Your task to perform on an android device: change the clock display to digital Image 0: 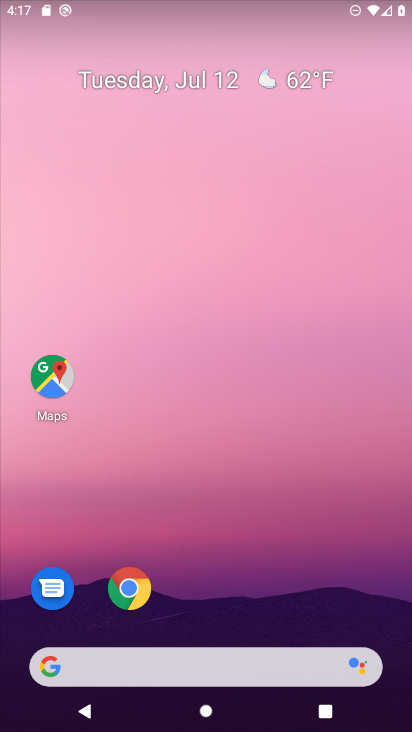
Step 0: drag from (214, 623) to (271, 223)
Your task to perform on an android device: change the clock display to digital Image 1: 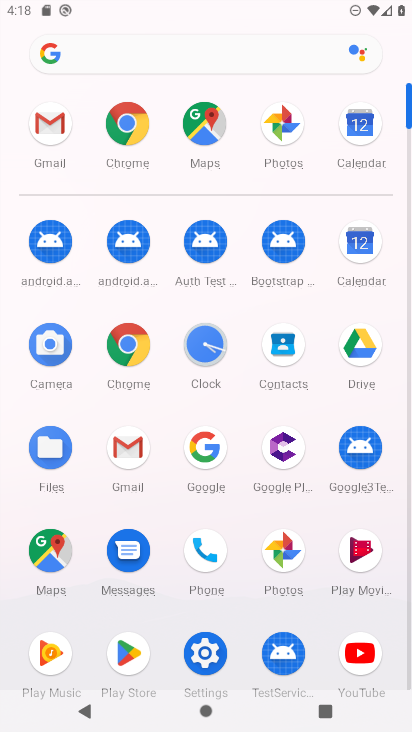
Step 1: click (208, 648)
Your task to perform on an android device: change the clock display to digital Image 2: 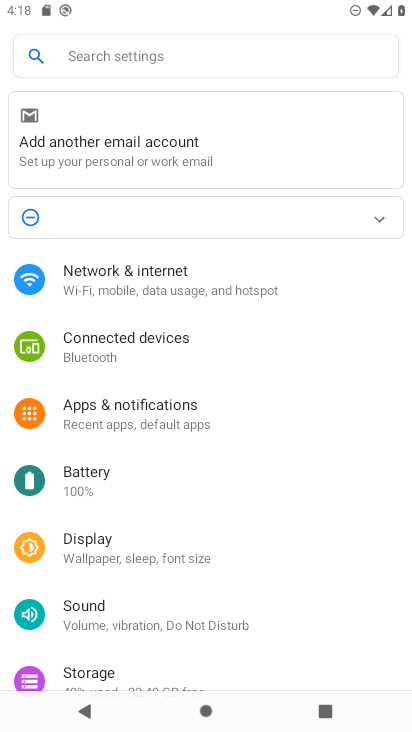
Step 2: click (135, 554)
Your task to perform on an android device: change the clock display to digital Image 3: 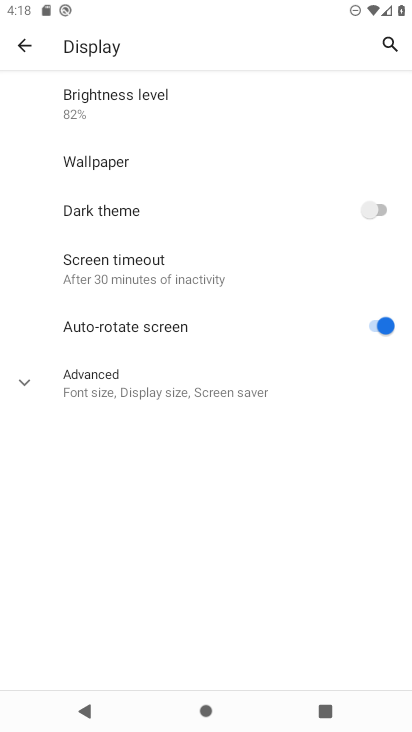
Step 3: click (163, 394)
Your task to perform on an android device: change the clock display to digital Image 4: 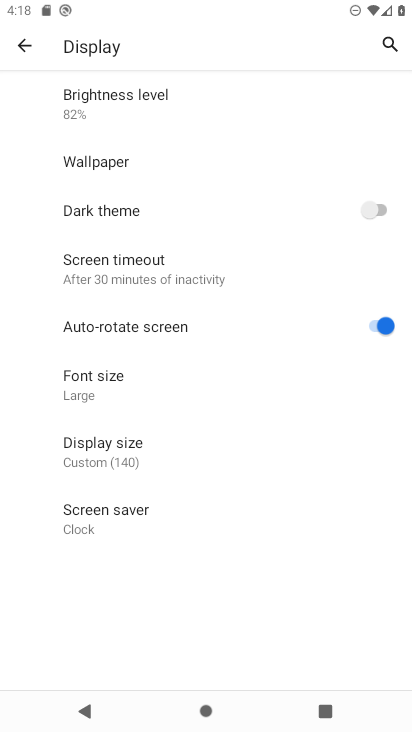
Step 4: click (114, 522)
Your task to perform on an android device: change the clock display to digital Image 5: 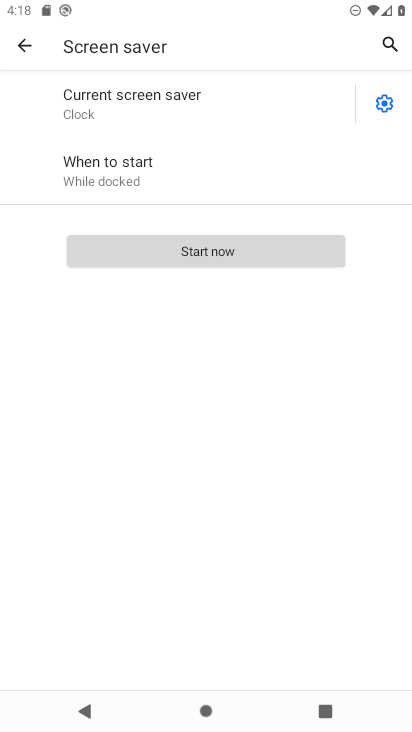
Step 5: click (385, 109)
Your task to perform on an android device: change the clock display to digital Image 6: 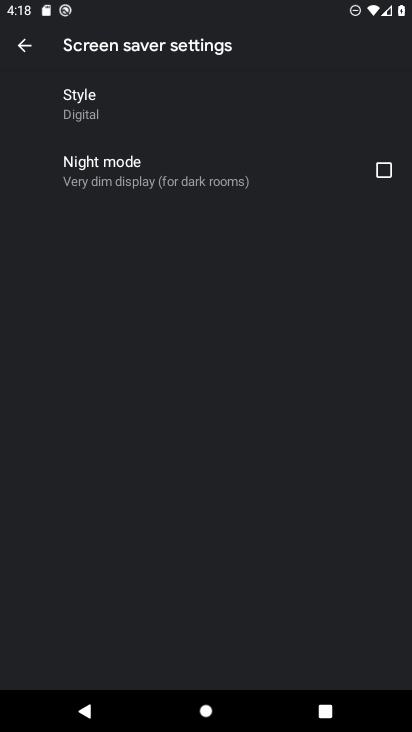
Step 6: click (105, 113)
Your task to perform on an android device: change the clock display to digital Image 7: 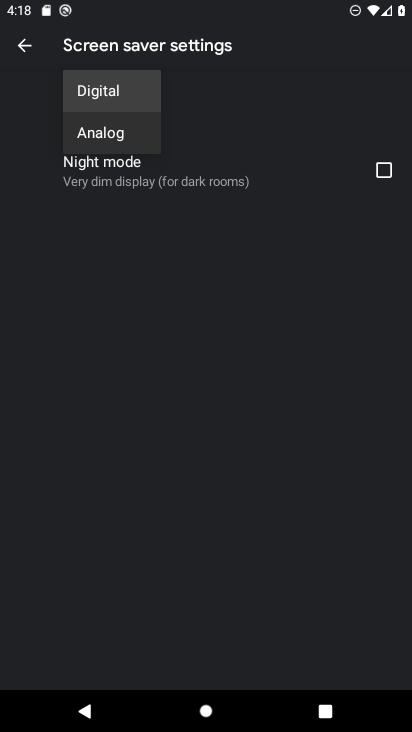
Step 7: task complete